Your task to perform on an android device: turn off smart reply in the gmail app Image 0: 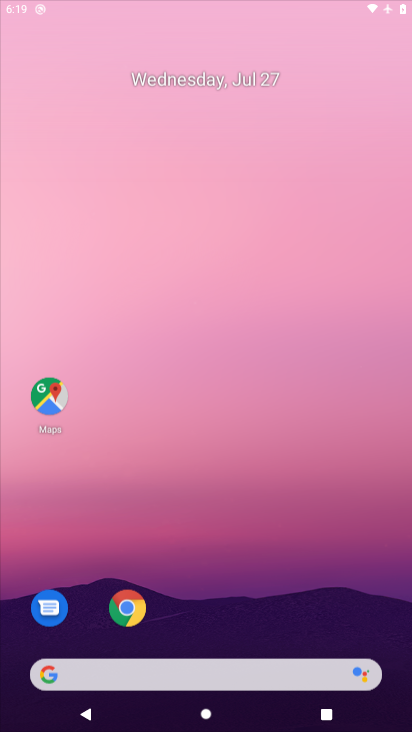
Step 0: press home button
Your task to perform on an android device: turn off smart reply in the gmail app Image 1: 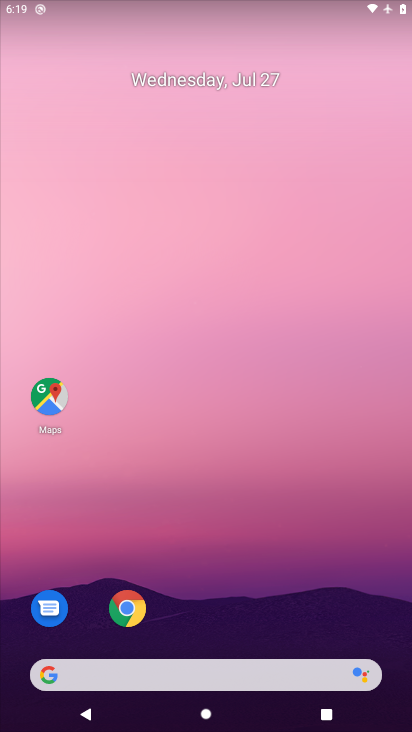
Step 1: press home button
Your task to perform on an android device: turn off smart reply in the gmail app Image 2: 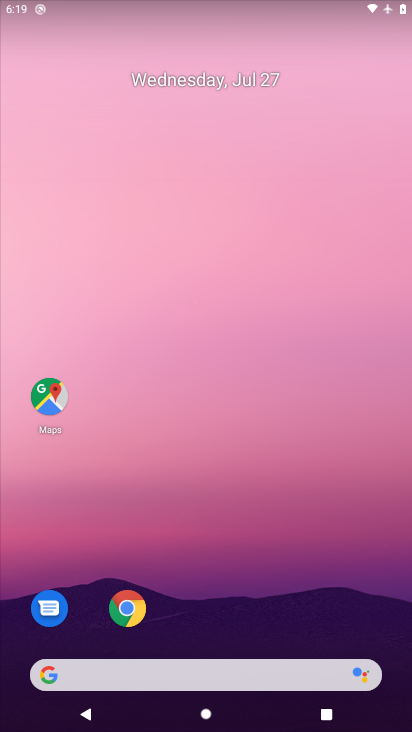
Step 2: drag from (223, 632) to (235, 397)
Your task to perform on an android device: turn off smart reply in the gmail app Image 3: 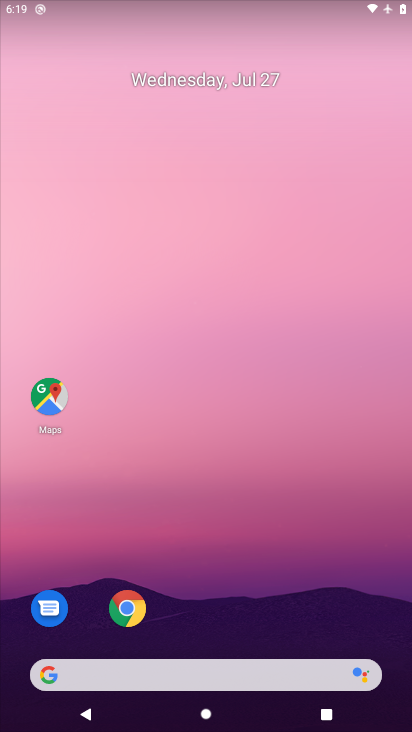
Step 3: drag from (214, 616) to (0, 59)
Your task to perform on an android device: turn off smart reply in the gmail app Image 4: 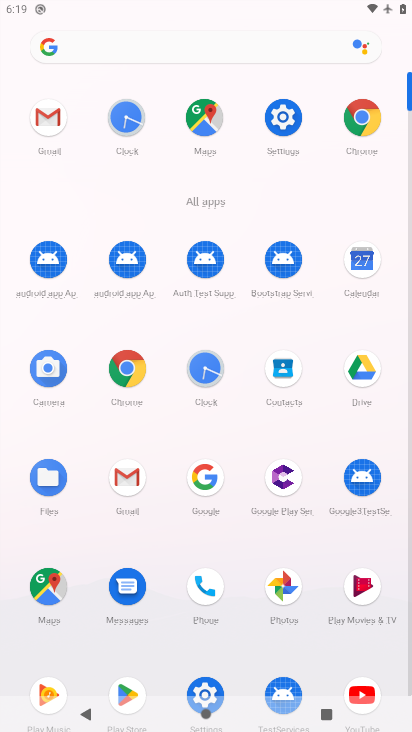
Step 4: click (48, 122)
Your task to perform on an android device: turn off smart reply in the gmail app Image 5: 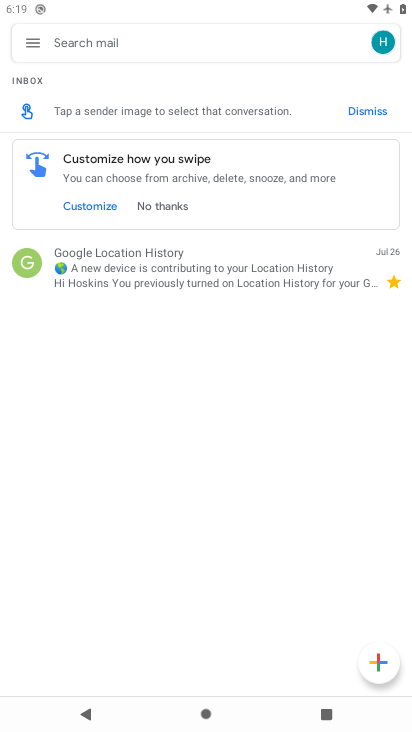
Step 5: click (33, 42)
Your task to perform on an android device: turn off smart reply in the gmail app Image 6: 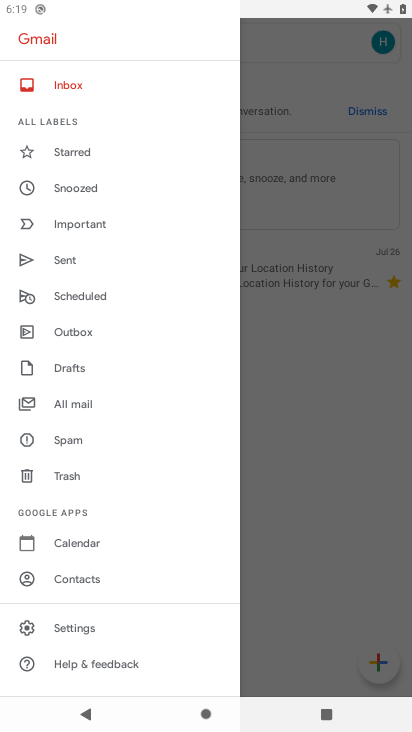
Step 6: click (74, 630)
Your task to perform on an android device: turn off smart reply in the gmail app Image 7: 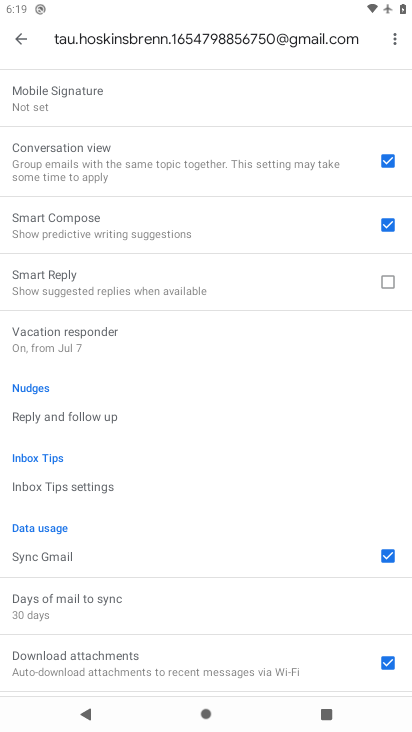
Step 7: task complete